Your task to perform on an android device: open the mobile data screen to see how much data has been used Image 0: 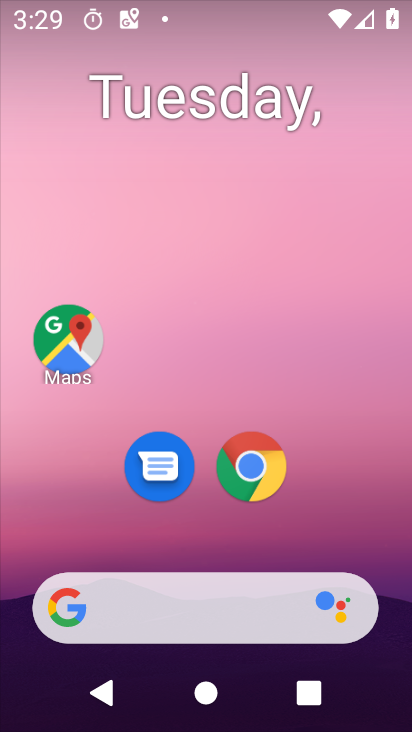
Step 0: drag from (391, 557) to (354, 173)
Your task to perform on an android device: open the mobile data screen to see how much data has been used Image 1: 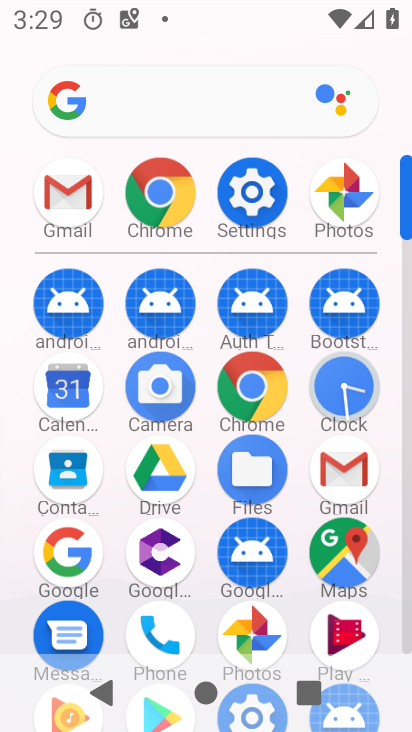
Step 1: click (262, 219)
Your task to perform on an android device: open the mobile data screen to see how much data has been used Image 2: 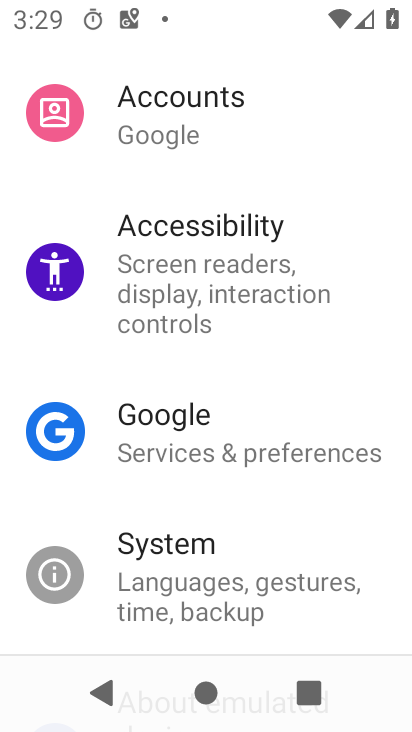
Step 2: drag from (350, 178) to (356, 286)
Your task to perform on an android device: open the mobile data screen to see how much data has been used Image 3: 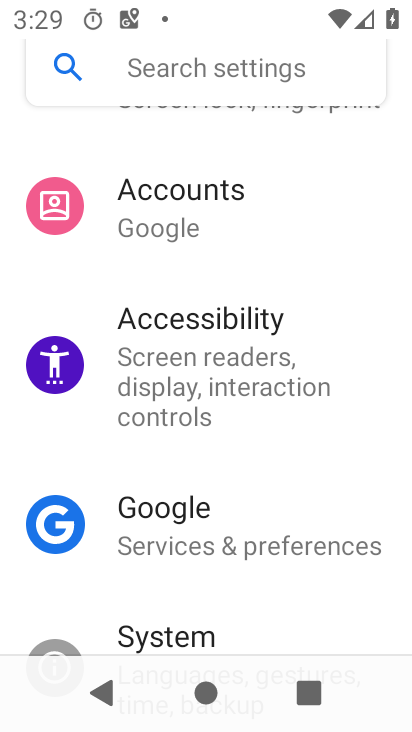
Step 3: drag from (358, 164) to (358, 276)
Your task to perform on an android device: open the mobile data screen to see how much data has been used Image 4: 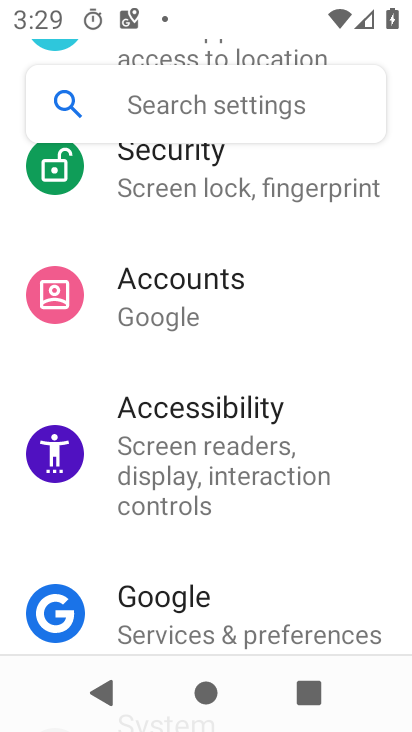
Step 4: drag from (346, 153) to (352, 310)
Your task to perform on an android device: open the mobile data screen to see how much data has been used Image 5: 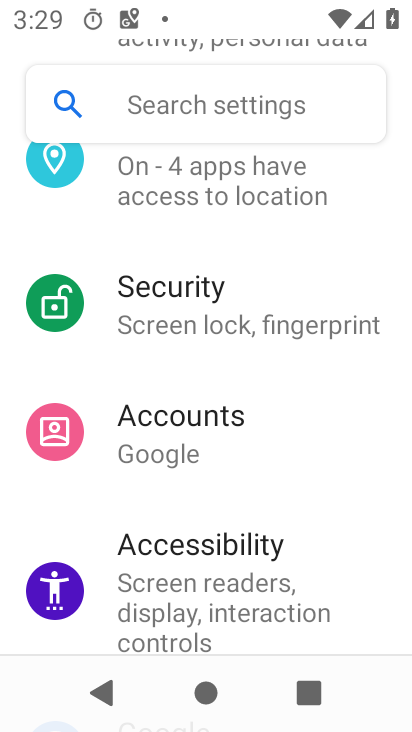
Step 5: drag from (348, 168) to (352, 307)
Your task to perform on an android device: open the mobile data screen to see how much data has been used Image 6: 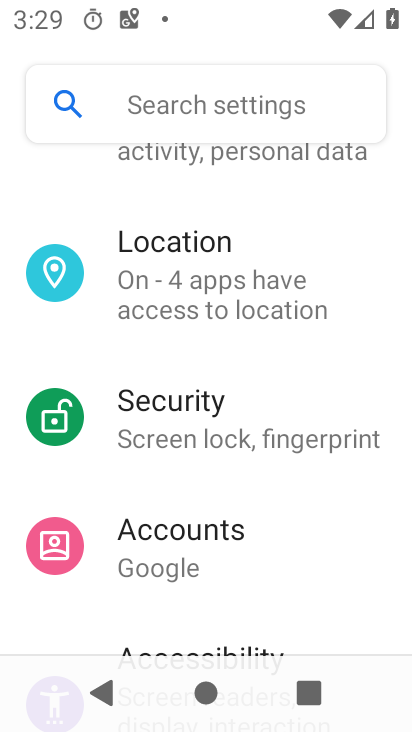
Step 6: drag from (346, 180) to (356, 325)
Your task to perform on an android device: open the mobile data screen to see how much data has been used Image 7: 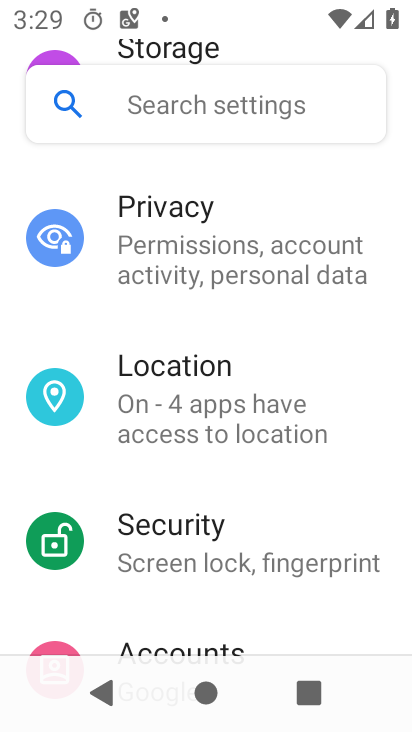
Step 7: drag from (331, 170) to (338, 317)
Your task to perform on an android device: open the mobile data screen to see how much data has been used Image 8: 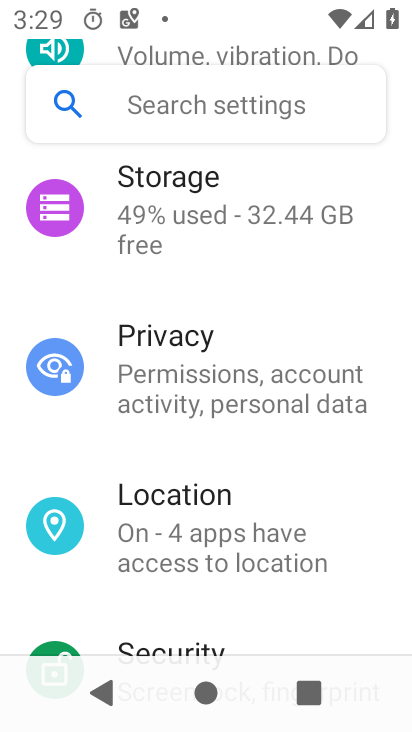
Step 8: drag from (318, 174) to (322, 314)
Your task to perform on an android device: open the mobile data screen to see how much data has been used Image 9: 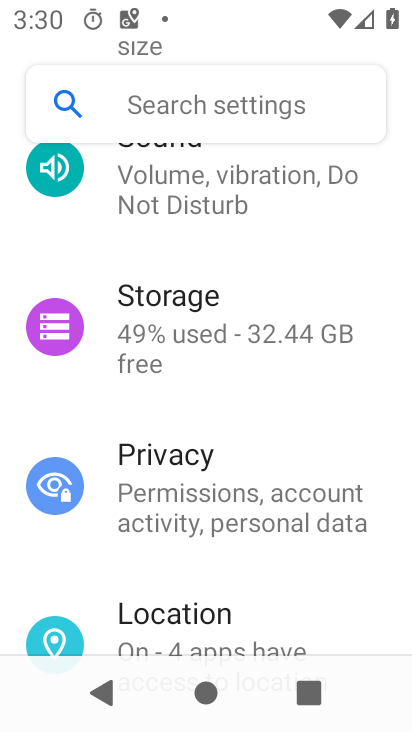
Step 9: drag from (314, 152) to (316, 300)
Your task to perform on an android device: open the mobile data screen to see how much data has been used Image 10: 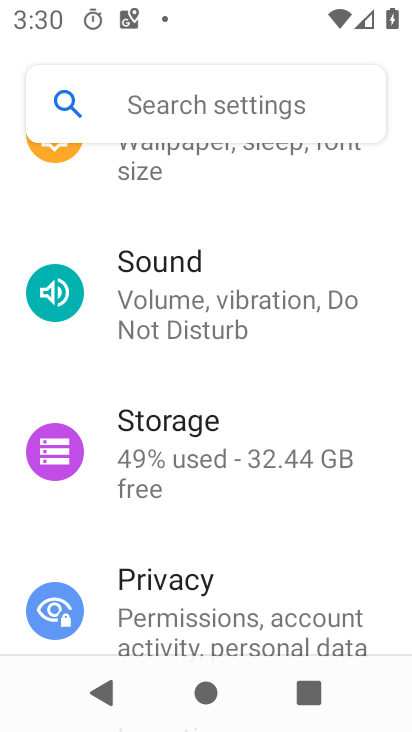
Step 10: drag from (314, 201) to (316, 355)
Your task to perform on an android device: open the mobile data screen to see how much data has been used Image 11: 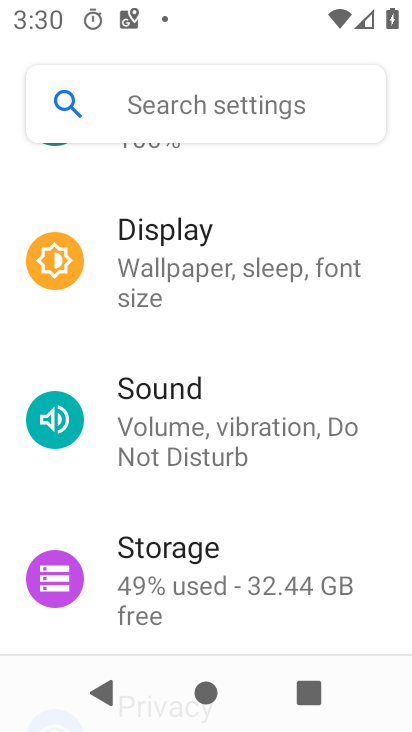
Step 11: drag from (305, 189) to (302, 323)
Your task to perform on an android device: open the mobile data screen to see how much data has been used Image 12: 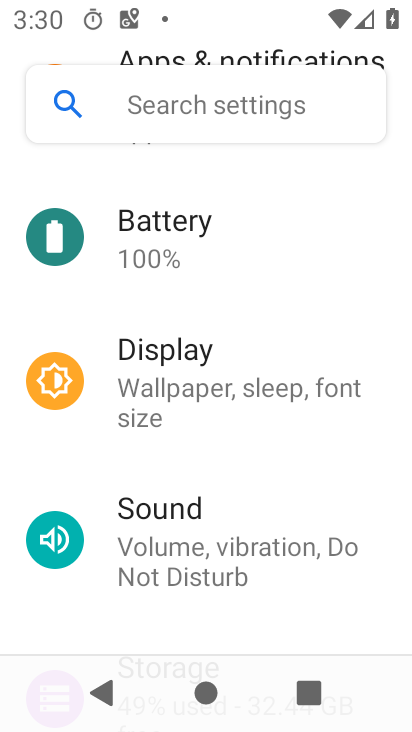
Step 12: drag from (297, 206) to (297, 334)
Your task to perform on an android device: open the mobile data screen to see how much data has been used Image 13: 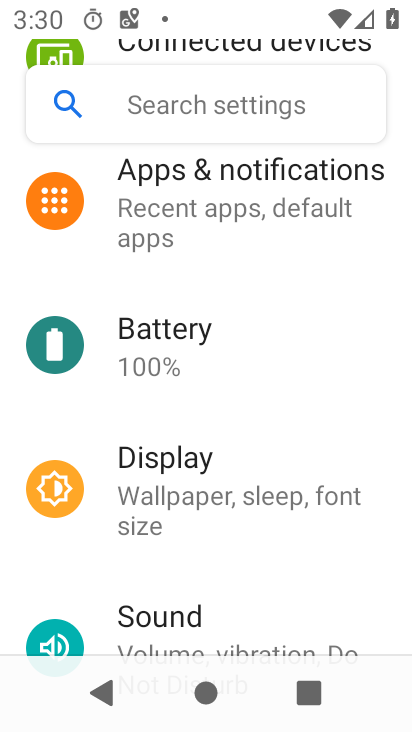
Step 13: drag from (301, 195) to (306, 330)
Your task to perform on an android device: open the mobile data screen to see how much data has been used Image 14: 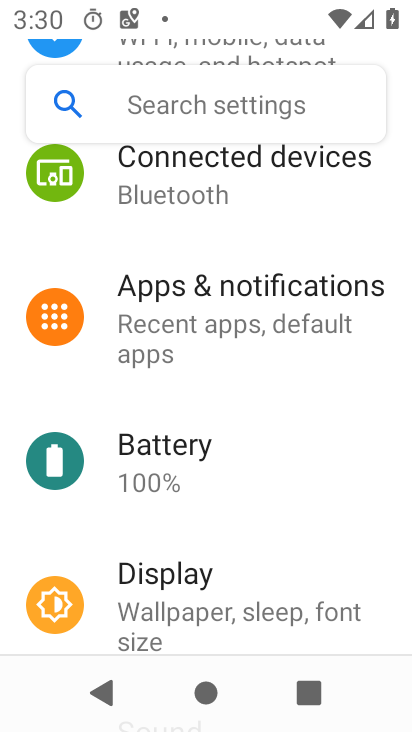
Step 14: drag from (302, 202) to (302, 341)
Your task to perform on an android device: open the mobile data screen to see how much data has been used Image 15: 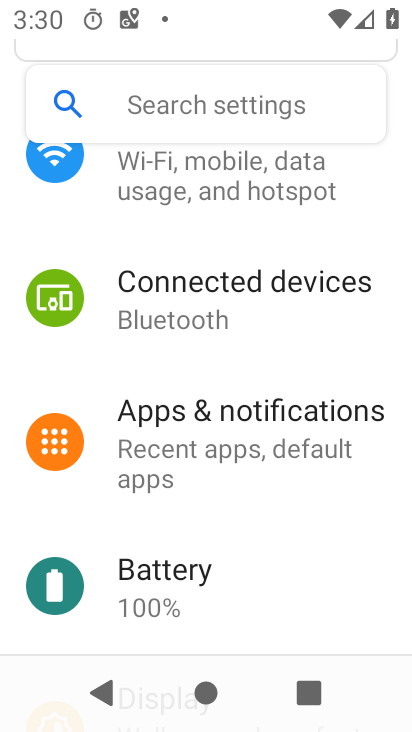
Step 15: drag from (306, 220) to (296, 368)
Your task to perform on an android device: open the mobile data screen to see how much data has been used Image 16: 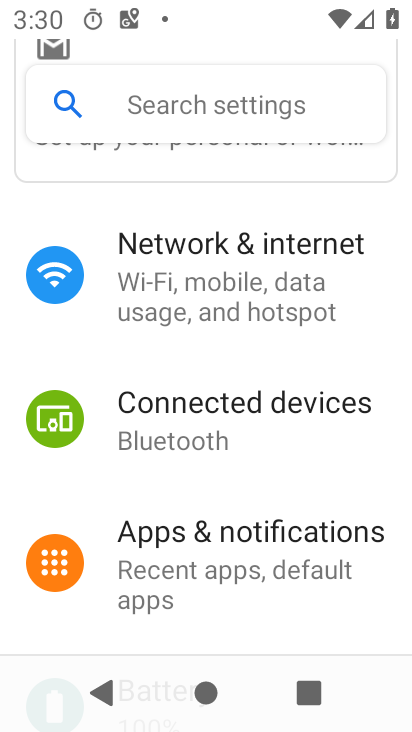
Step 16: click (285, 289)
Your task to perform on an android device: open the mobile data screen to see how much data has been used Image 17: 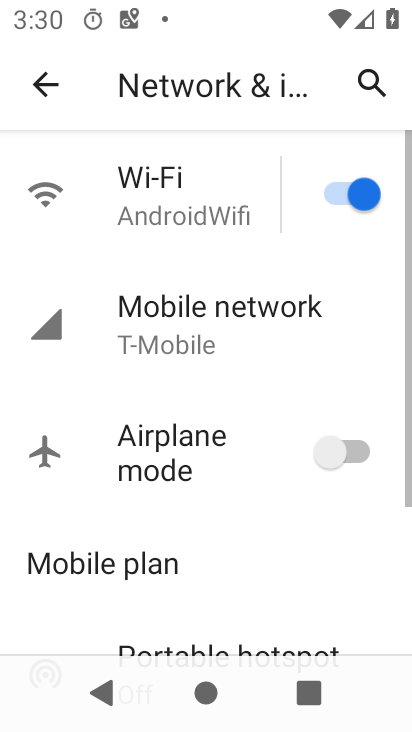
Step 17: click (266, 305)
Your task to perform on an android device: open the mobile data screen to see how much data has been used Image 18: 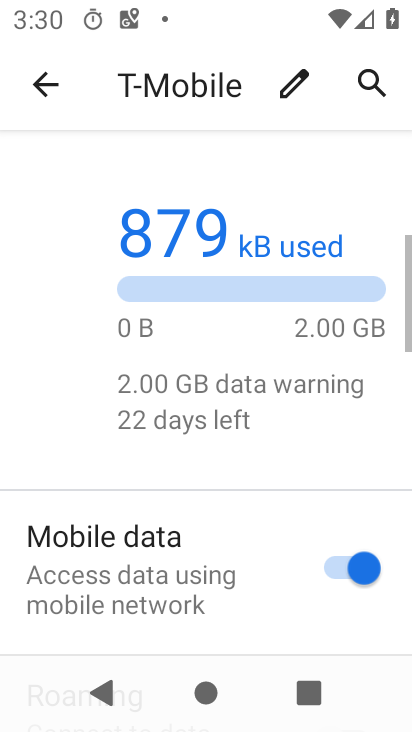
Step 18: drag from (251, 369) to (272, 243)
Your task to perform on an android device: open the mobile data screen to see how much data has been used Image 19: 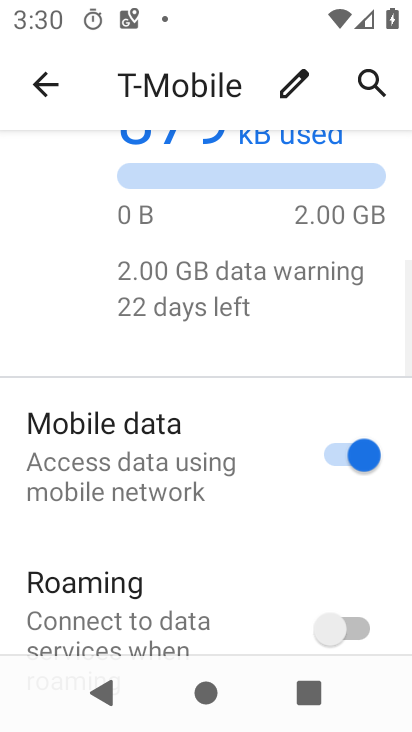
Step 19: drag from (261, 392) to (269, 261)
Your task to perform on an android device: open the mobile data screen to see how much data has been used Image 20: 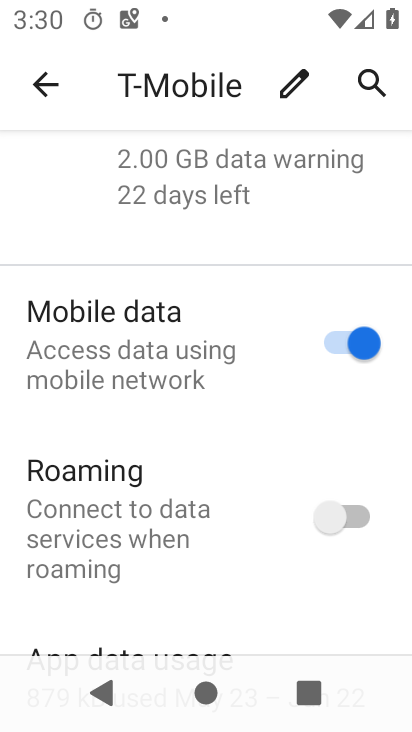
Step 20: drag from (247, 424) to (263, 286)
Your task to perform on an android device: open the mobile data screen to see how much data has been used Image 21: 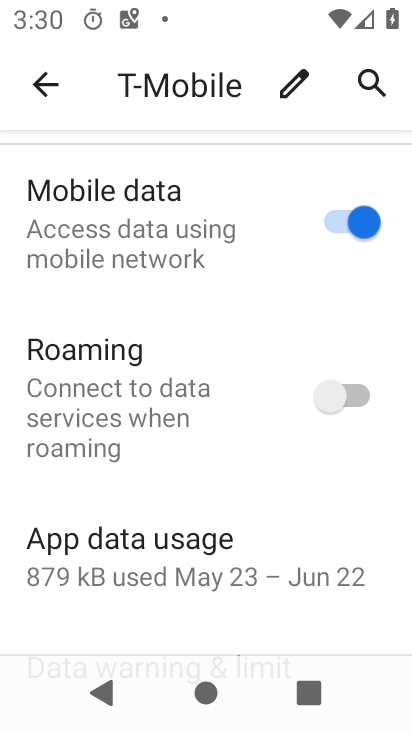
Step 21: click (189, 557)
Your task to perform on an android device: open the mobile data screen to see how much data has been used Image 22: 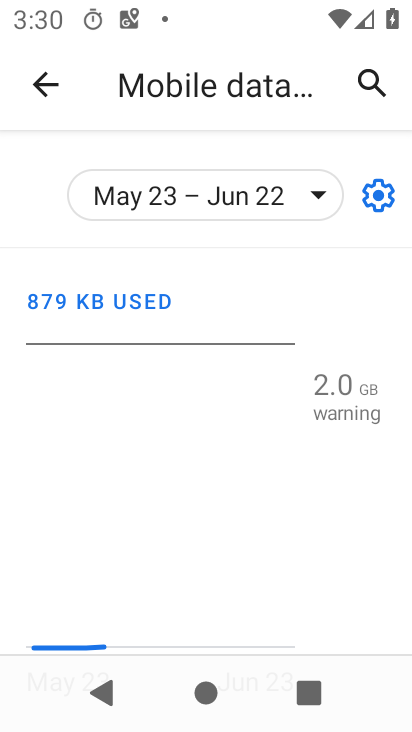
Step 22: task complete